Your task to perform on an android device: Open calendar and show me the second week of next month Image 0: 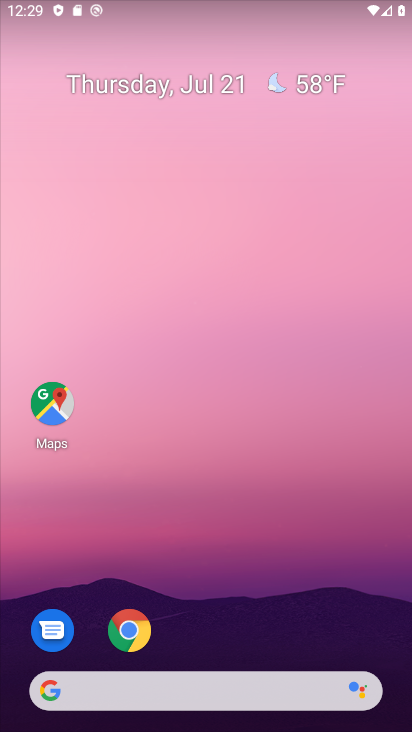
Step 0: drag from (225, 647) to (264, 79)
Your task to perform on an android device: Open calendar and show me the second week of next month Image 1: 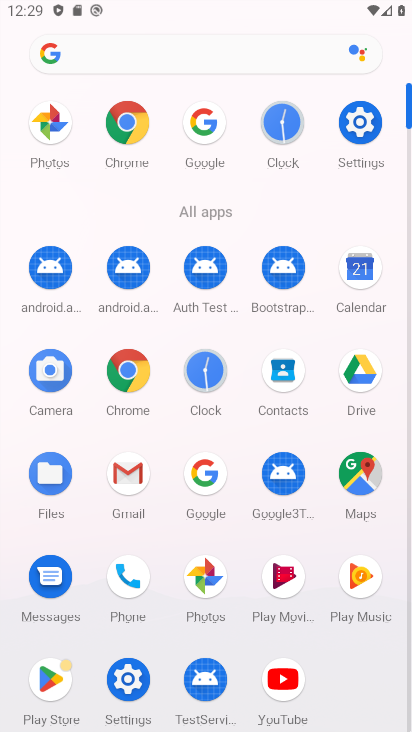
Step 1: click (358, 276)
Your task to perform on an android device: Open calendar and show me the second week of next month Image 2: 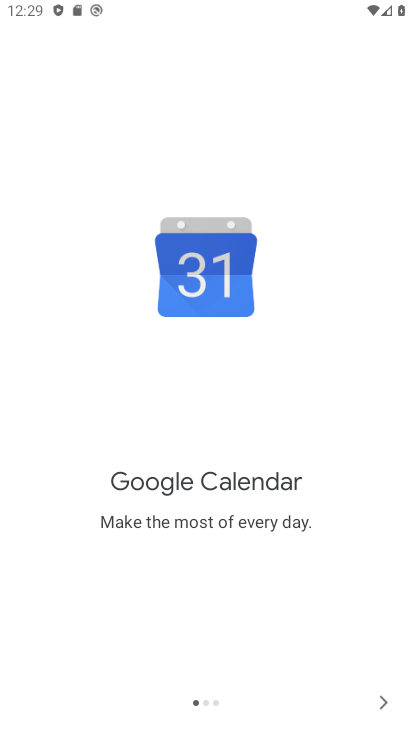
Step 2: click (385, 705)
Your task to perform on an android device: Open calendar and show me the second week of next month Image 3: 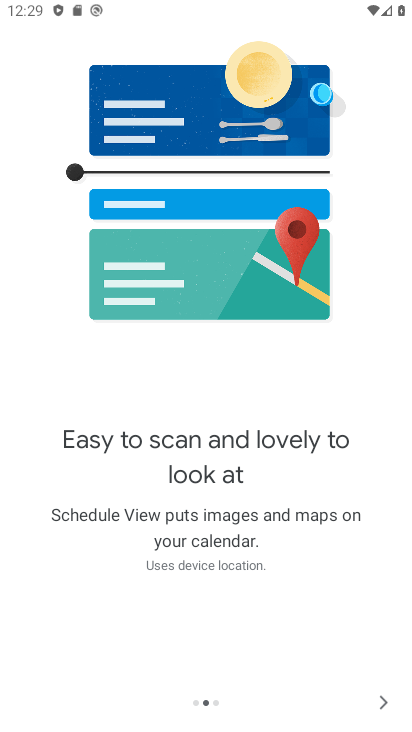
Step 3: click (385, 705)
Your task to perform on an android device: Open calendar and show me the second week of next month Image 4: 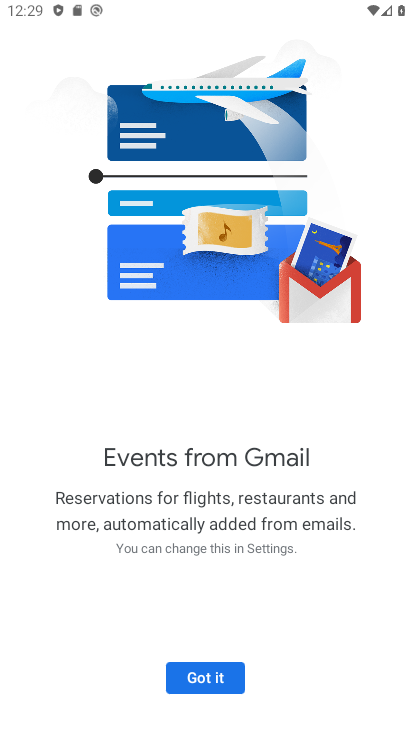
Step 4: click (205, 681)
Your task to perform on an android device: Open calendar and show me the second week of next month Image 5: 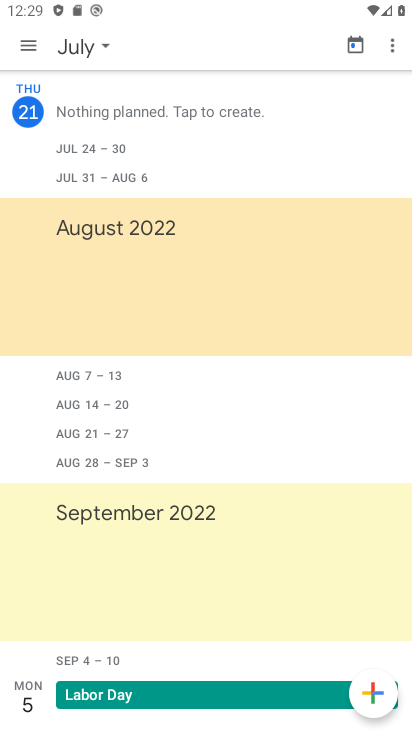
Step 5: click (96, 51)
Your task to perform on an android device: Open calendar and show me the second week of next month Image 6: 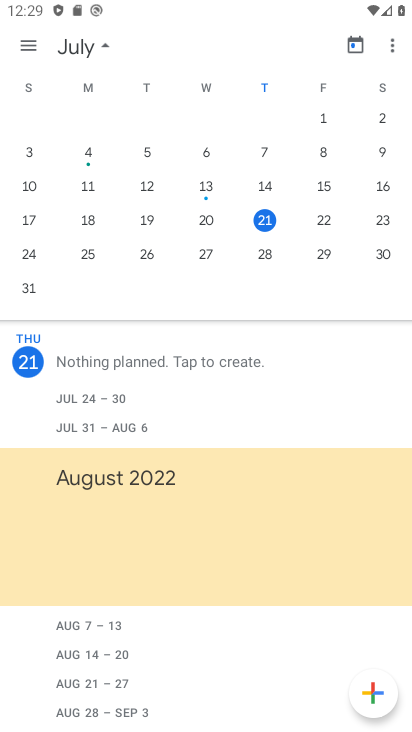
Step 6: drag from (373, 291) to (4, 247)
Your task to perform on an android device: Open calendar and show me the second week of next month Image 7: 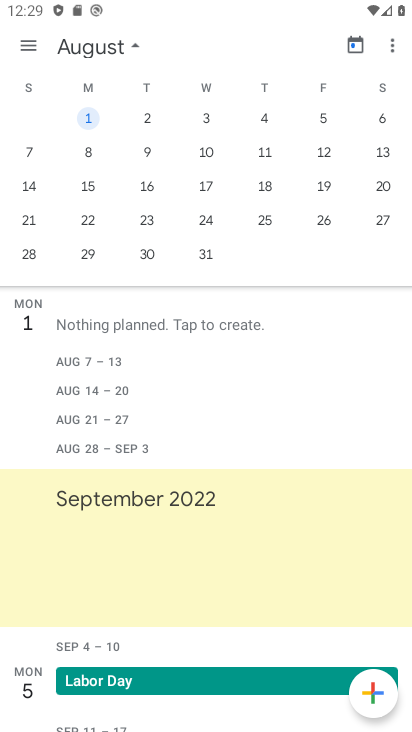
Step 7: click (260, 152)
Your task to perform on an android device: Open calendar and show me the second week of next month Image 8: 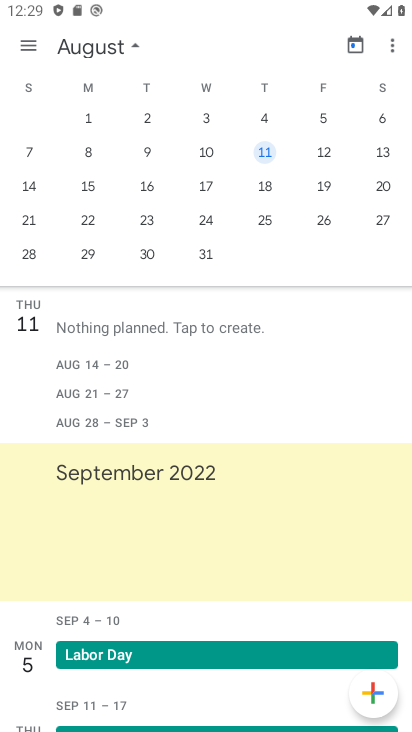
Step 8: task complete